Your task to perform on an android device: show emergency info Image 0: 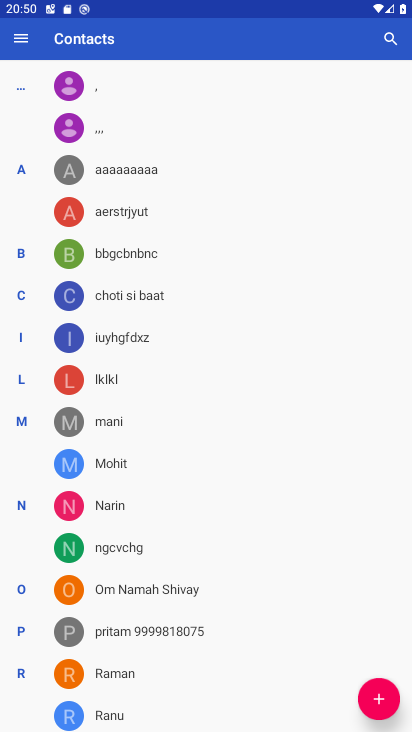
Step 0: press home button
Your task to perform on an android device: show emergency info Image 1: 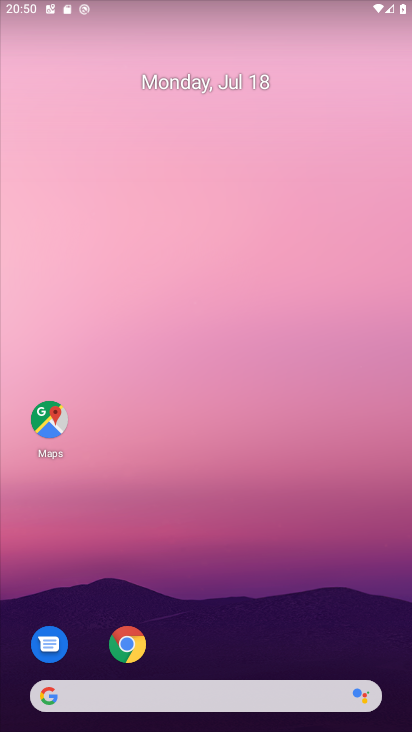
Step 1: drag from (243, 648) to (271, 161)
Your task to perform on an android device: show emergency info Image 2: 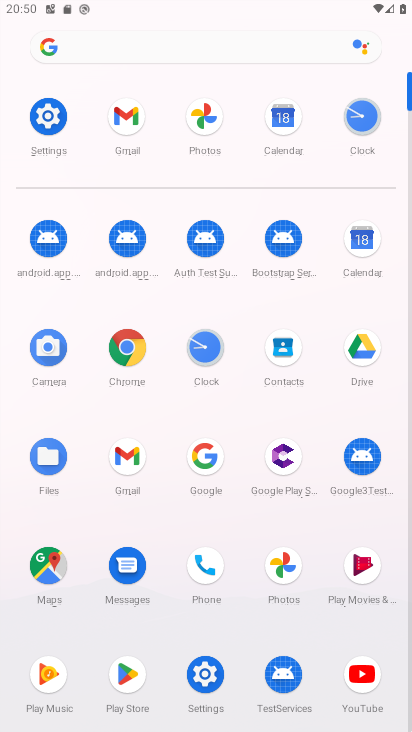
Step 2: click (65, 125)
Your task to perform on an android device: show emergency info Image 3: 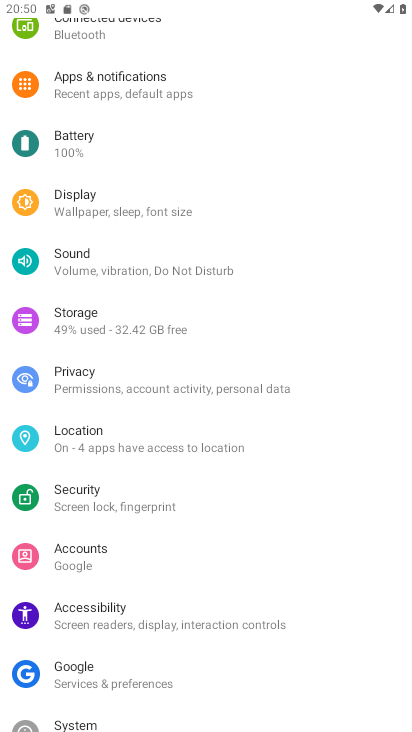
Step 3: drag from (120, 639) to (180, 265)
Your task to perform on an android device: show emergency info Image 4: 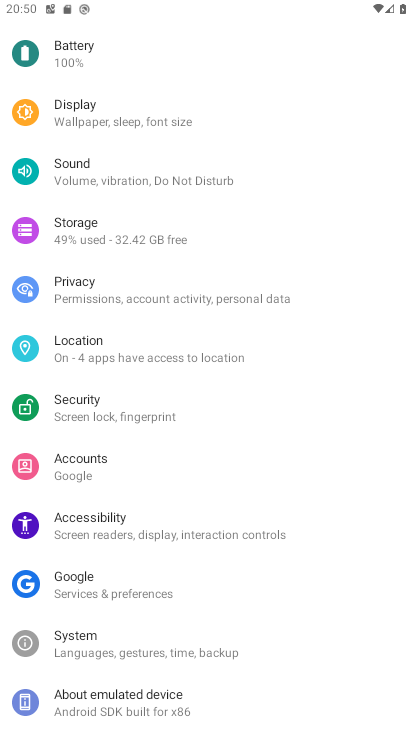
Step 4: click (148, 701)
Your task to perform on an android device: show emergency info Image 5: 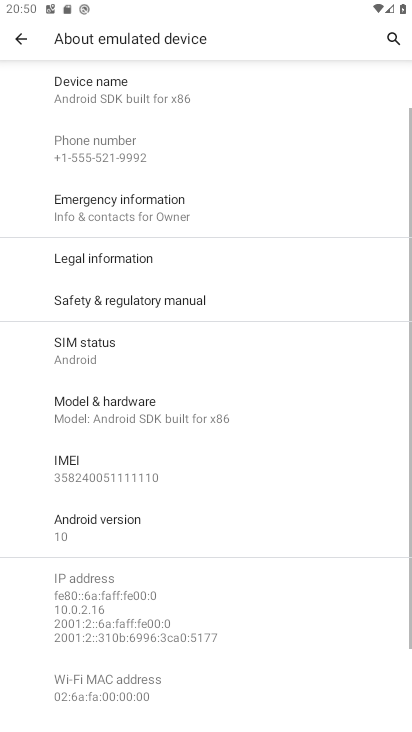
Step 5: click (106, 221)
Your task to perform on an android device: show emergency info Image 6: 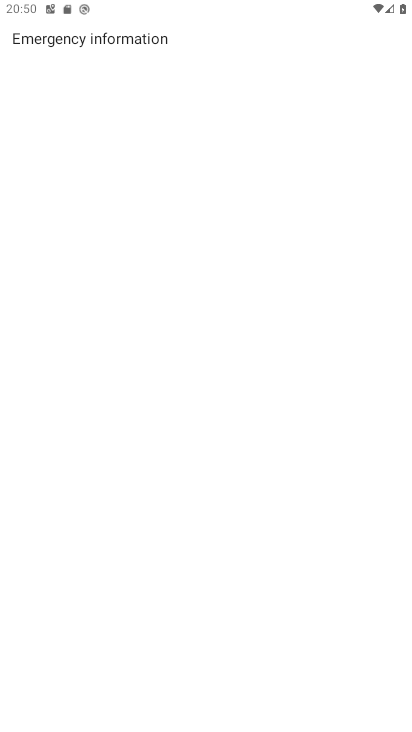
Step 6: task complete